Your task to perform on an android device: When is my next appointment? Image 0: 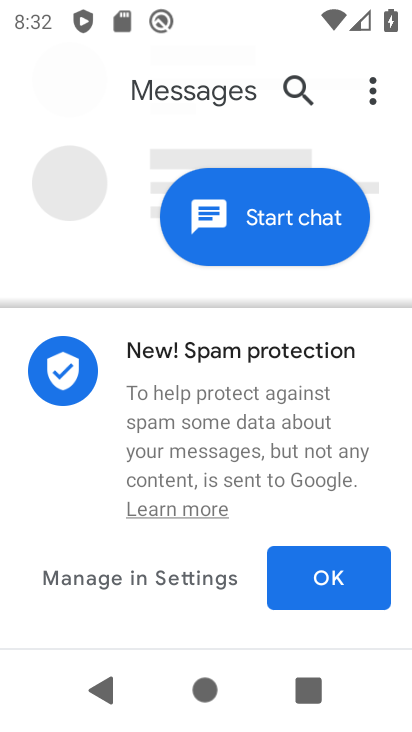
Step 0: press home button
Your task to perform on an android device: When is my next appointment? Image 1: 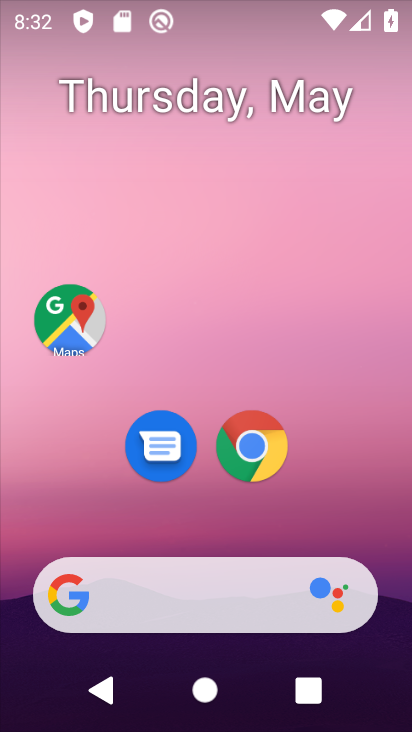
Step 1: drag from (395, 603) to (276, 118)
Your task to perform on an android device: When is my next appointment? Image 2: 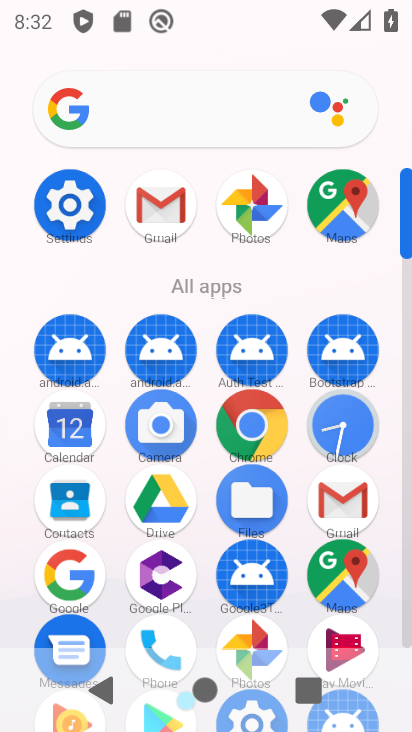
Step 2: click (404, 627)
Your task to perform on an android device: When is my next appointment? Image 3: 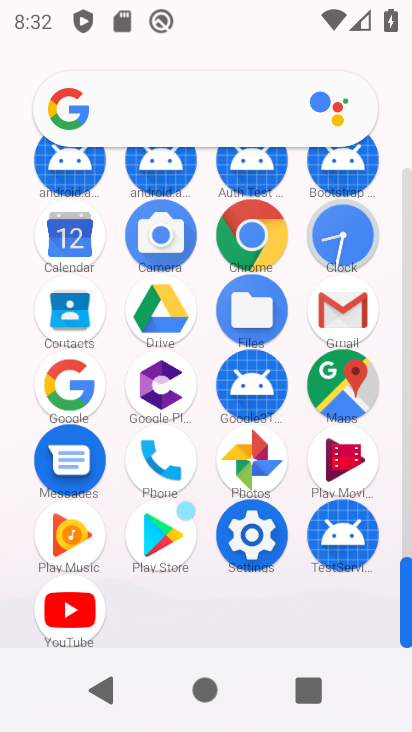
Step 3: click (68, 233)
Your task to perform on an android device: When is my next appointment? Image 4: 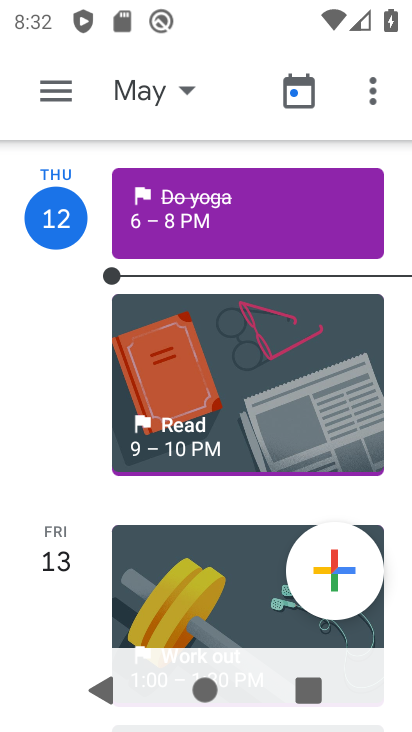
Step 4: task complete